Your task to perform on an android device: Open Maps and search for coffee Image 0: 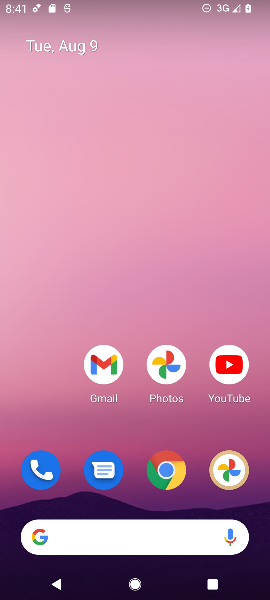
Step 0: drag from (98, 536) to (127, 107)
Your task to perform on an android device: Open Maps and search for coffee Image 1: 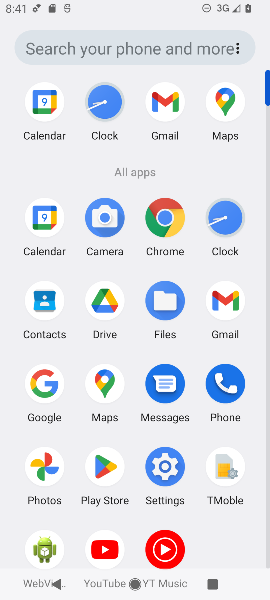
Step 1: click (222, 98)
Your task to perform on an android device: Open Maps and search for coffee Image 2: 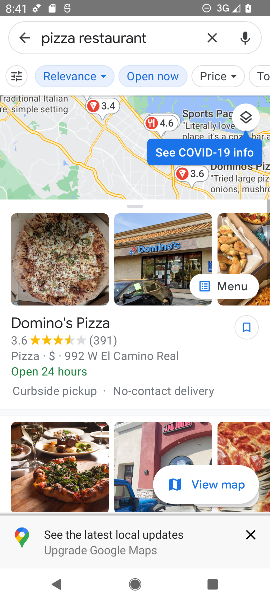
Step 2: click (213, 42)
Your task to perform on an android device: Open Maps and search for coffee Image 3: 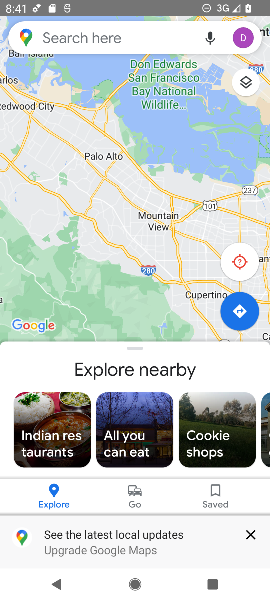
Step 3: click (125, 36)
Your task to perform on an android device: Open Maps and search for coffee Image 4: 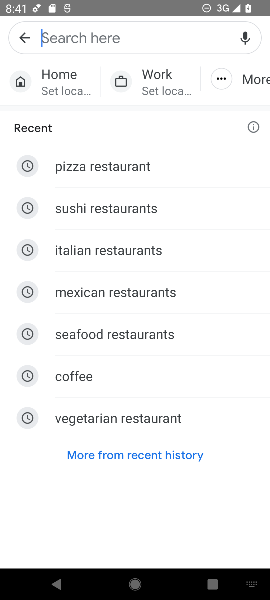
Step 4: type "coffee"
Your task to perform on an android device: Open Maps and search for coffee Image 5: 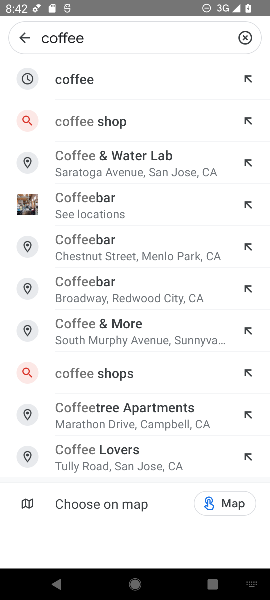
Step 5: click (88, 74)
Your task to perform on an android device: Open Maps and search for coffee Image 6: 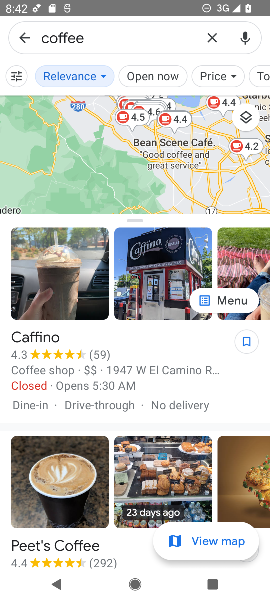
Step 6: task complete